Your task to perform on an android device: change the clock style Image 0: 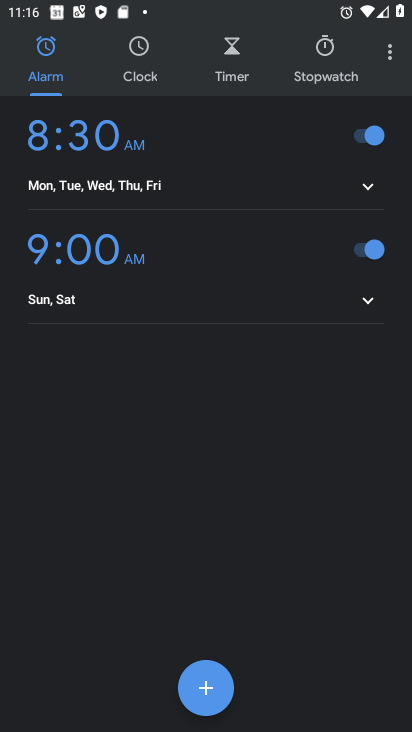
Step 0: press home button
Your task to perform on an android device: change the clock style Image 1: 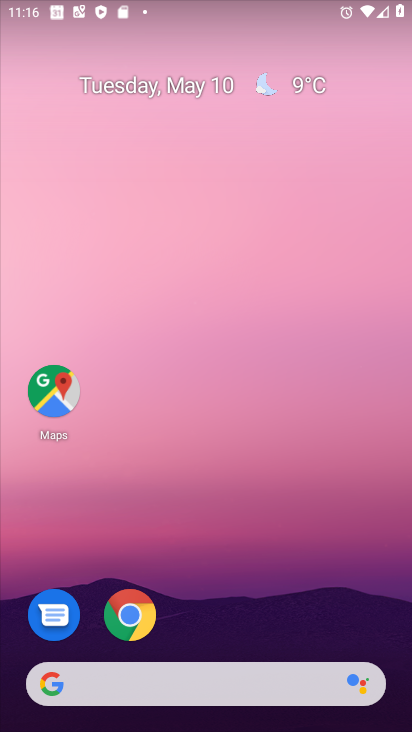
Step 1: drag from (250, 638) to (275, 30)
Your task to perform on an android device: change the clock style Image 2: 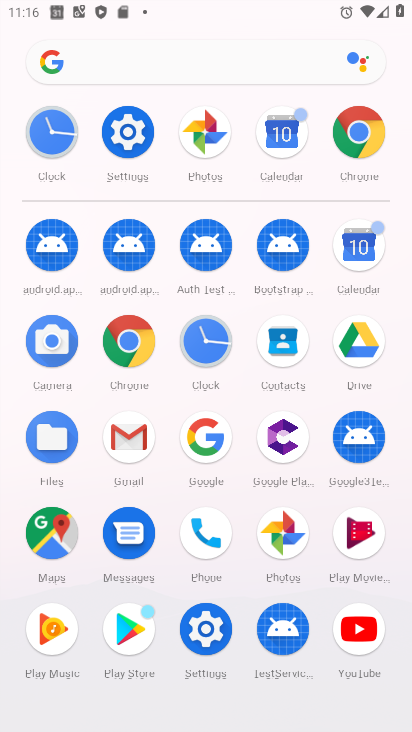
Step 2: click (201, 343)
Your task to perform on an android device: change the clock style Image 3: 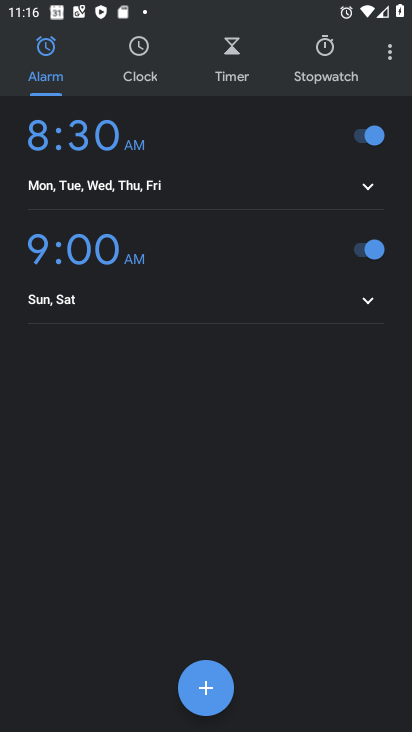
Step 3: click (385, 54)
Your task to perform on an android device: change the clock style Image 4: 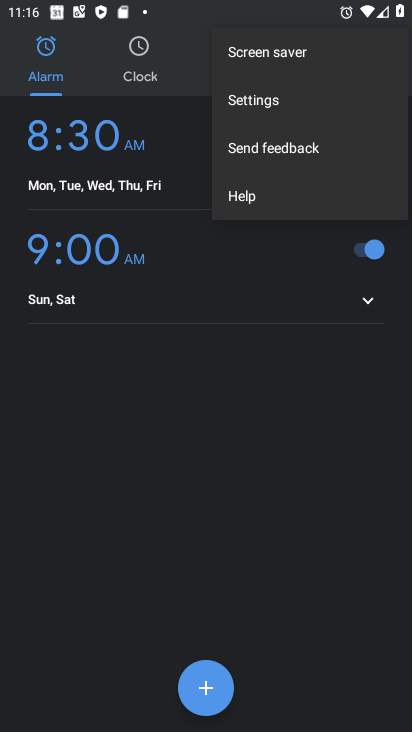
Step 4: click (277, 97)
Your task to perform on an android device: change the clock style Image 5: 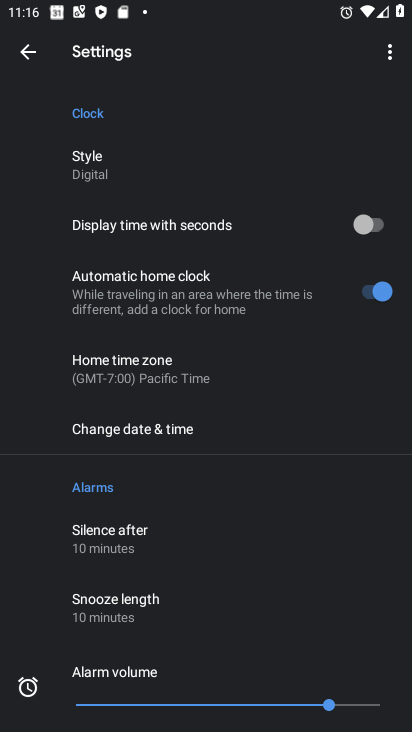
Step 5: click (129, 162)
Your task to perform on an android device: change the clock style Image 6: 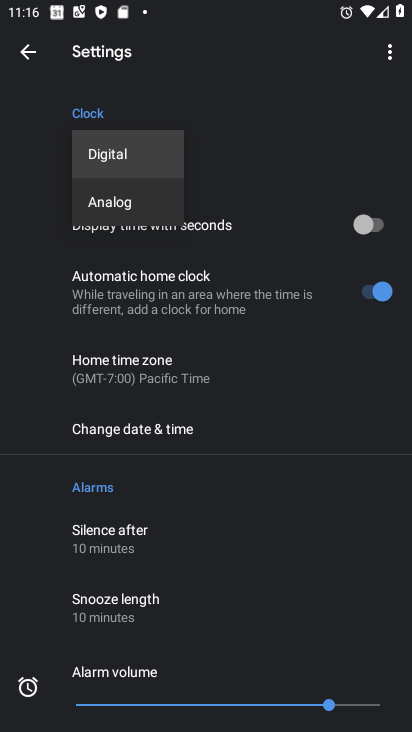
Step 6: click (125, 210)
Your task to perform on an android device: change the clock style Image 7: 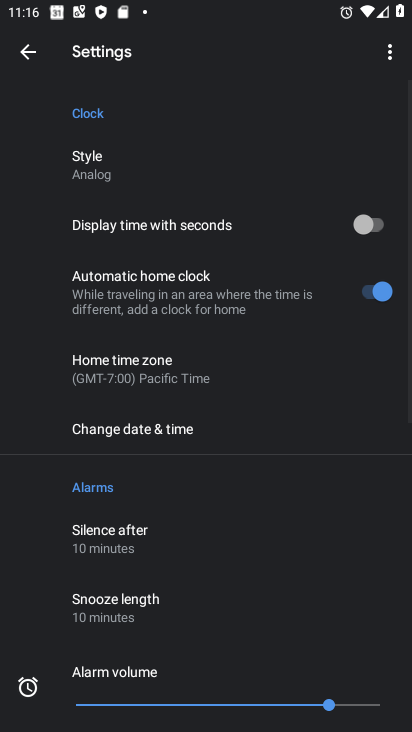
Step 7: task complete